Your task to perform on an android device: Clear the shopping cart on target.com. Image 0: 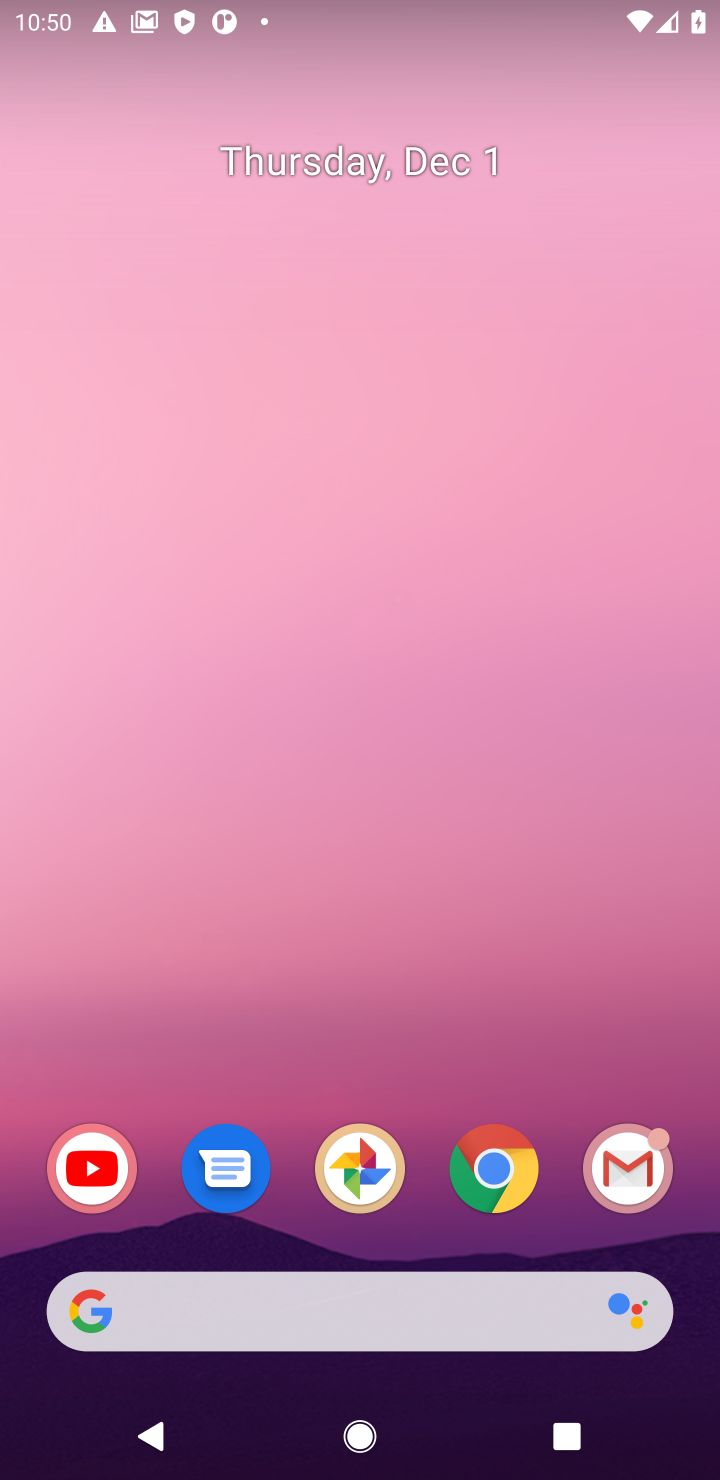
Step 0: click (497, 1180)
Your task to perform on an android device: Clear the shopping cart on target.com. Image 1: 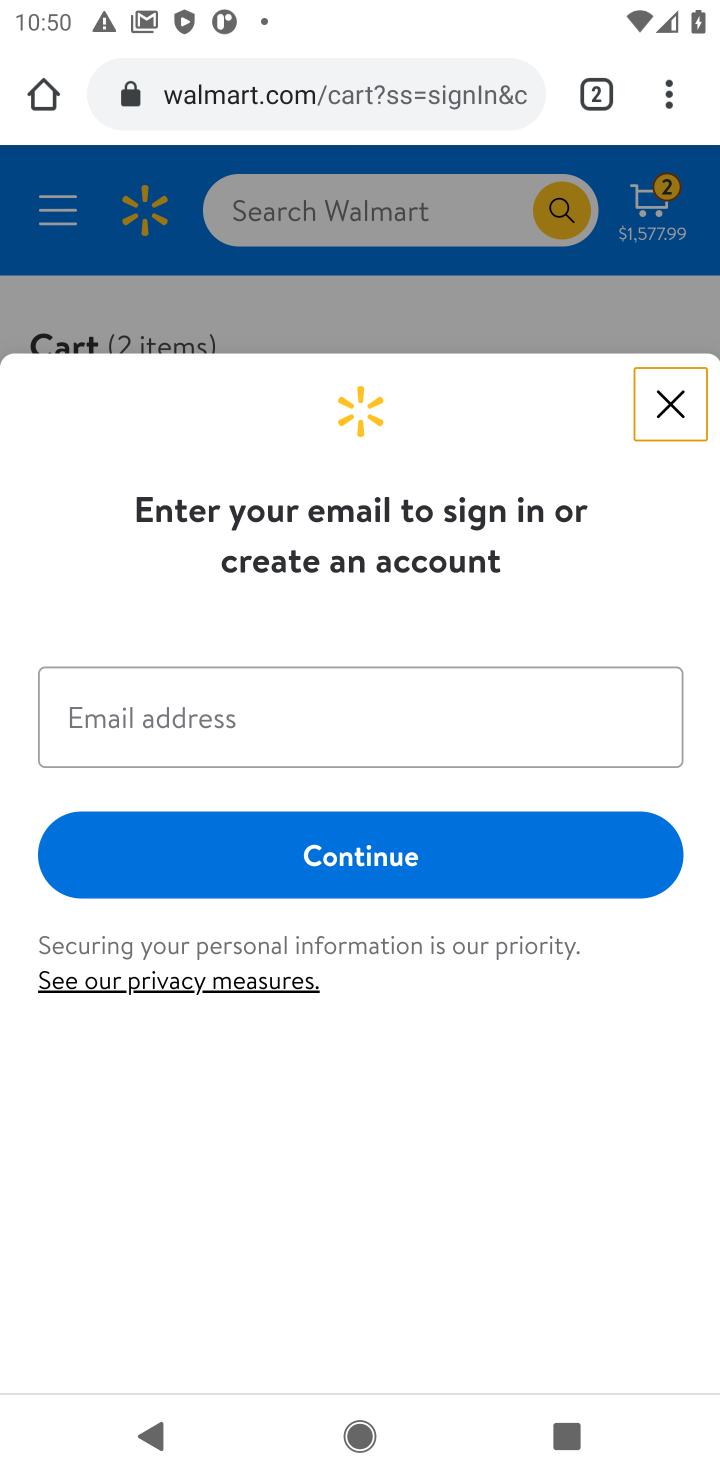
Step 1: click (317, 105)
Your task to perform on an android device: Clear the shopping cart on target.com. Image 2: 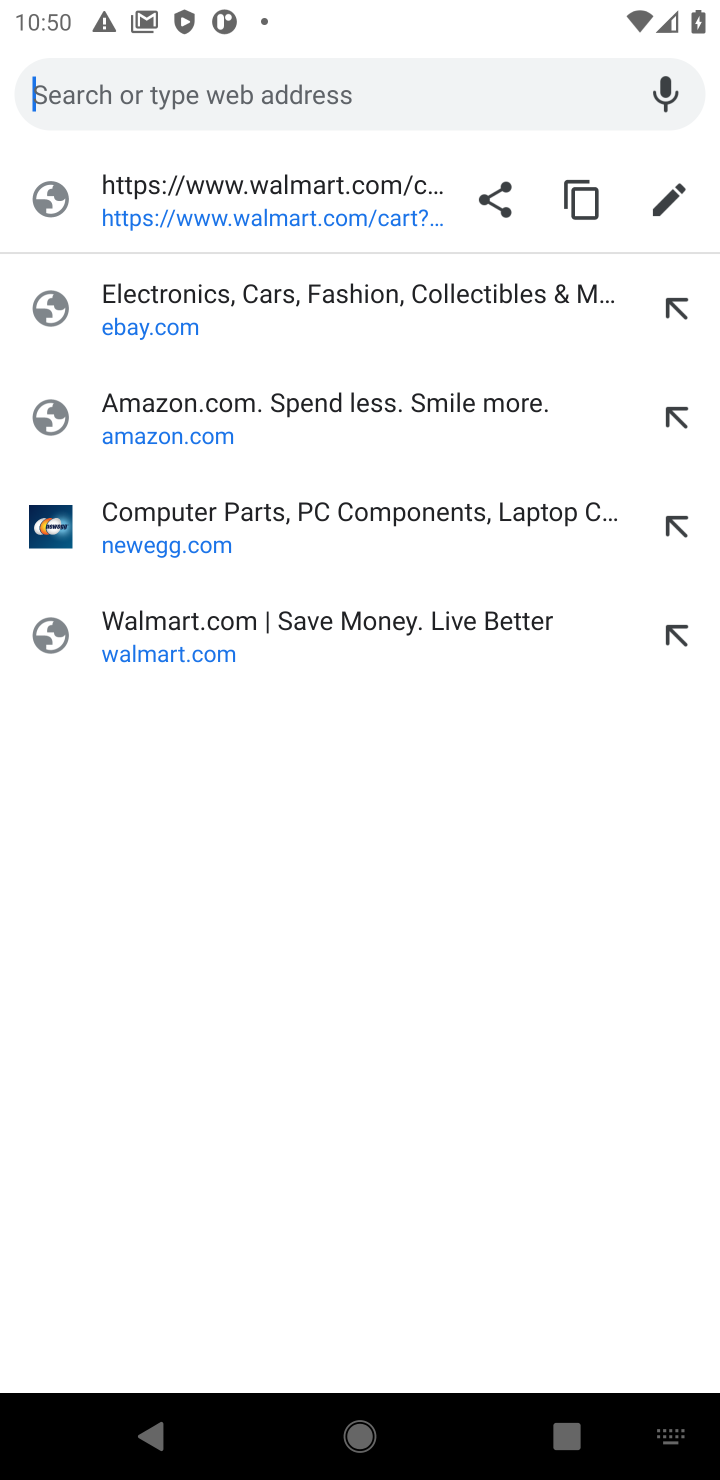
Step 2: type "target.com"
Your task to perform on an android device: Clear the shopping cart on target.com. Image 3: 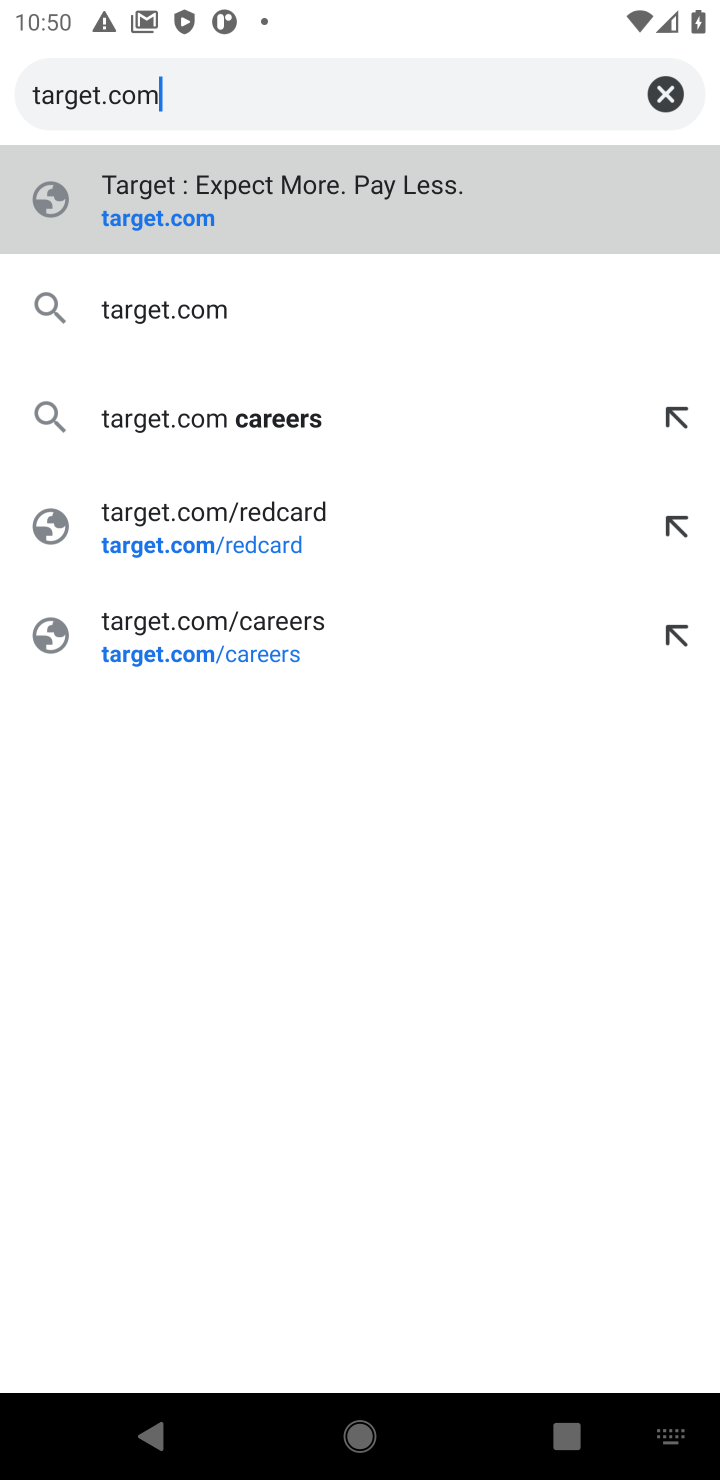
Step 3: click (151, 230)
Your task to perform on an android device: Clear the shopping cart on target.com. Image 4: 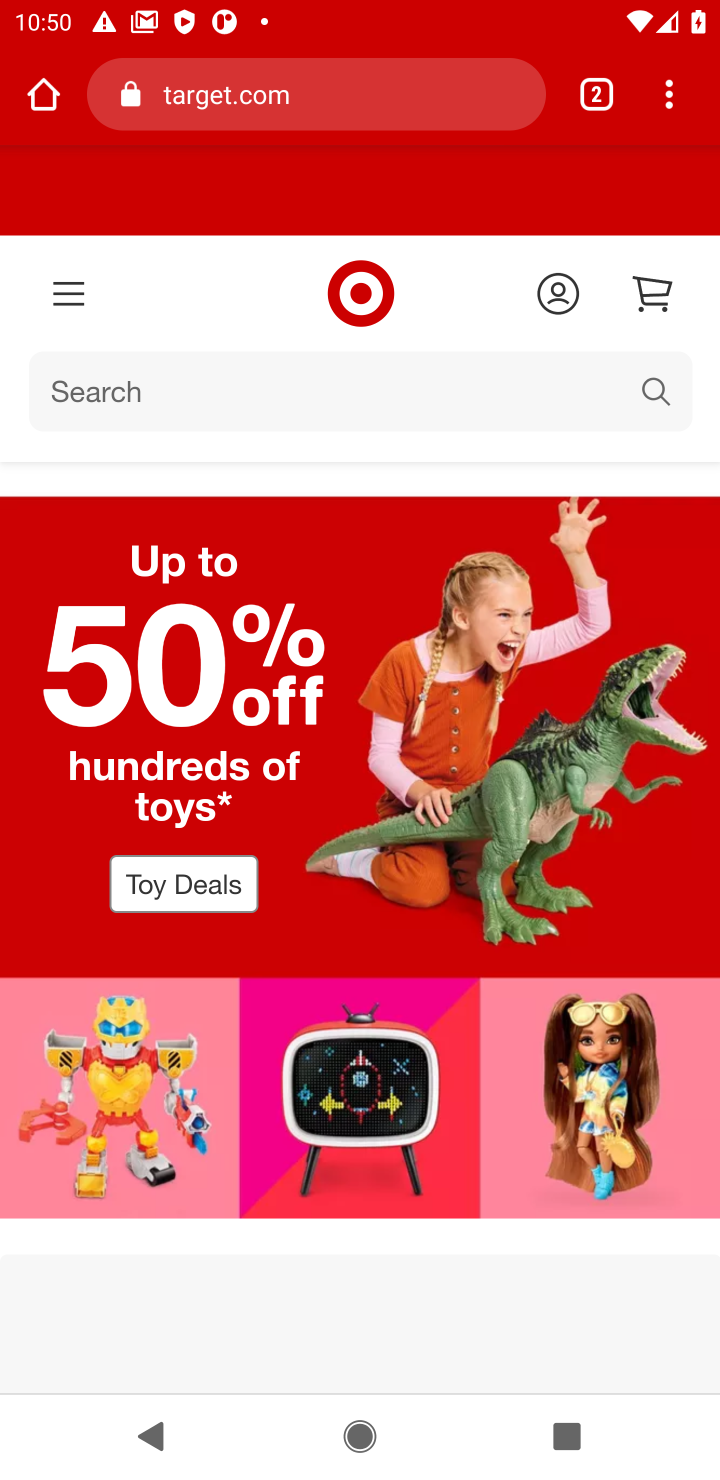
Step 4: click (655, 290)
Your task to perform on an android device: Clear the shopping cart on target.com. Image 5: 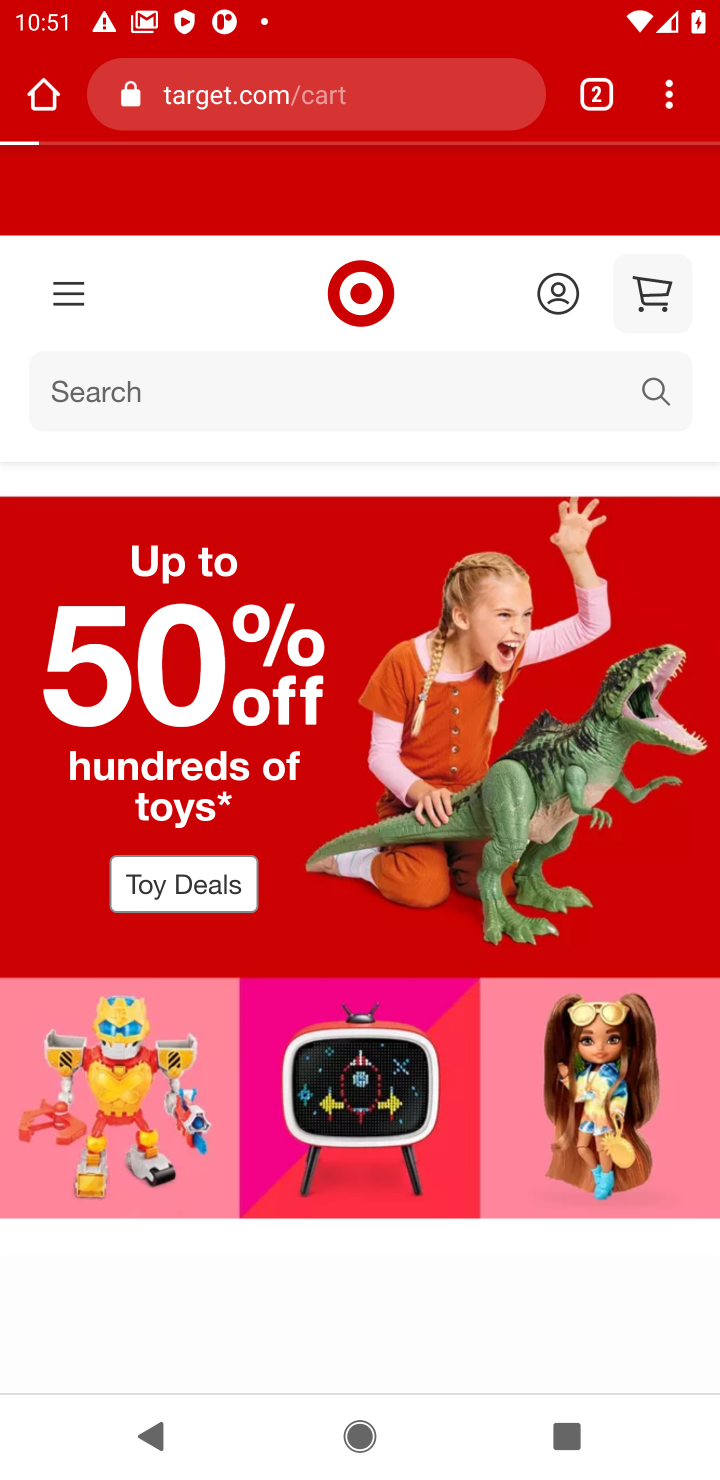
Step 5: click (653, 298)
Your task to perform on an android device: Clear the shopping cart on target.com. Image 6: 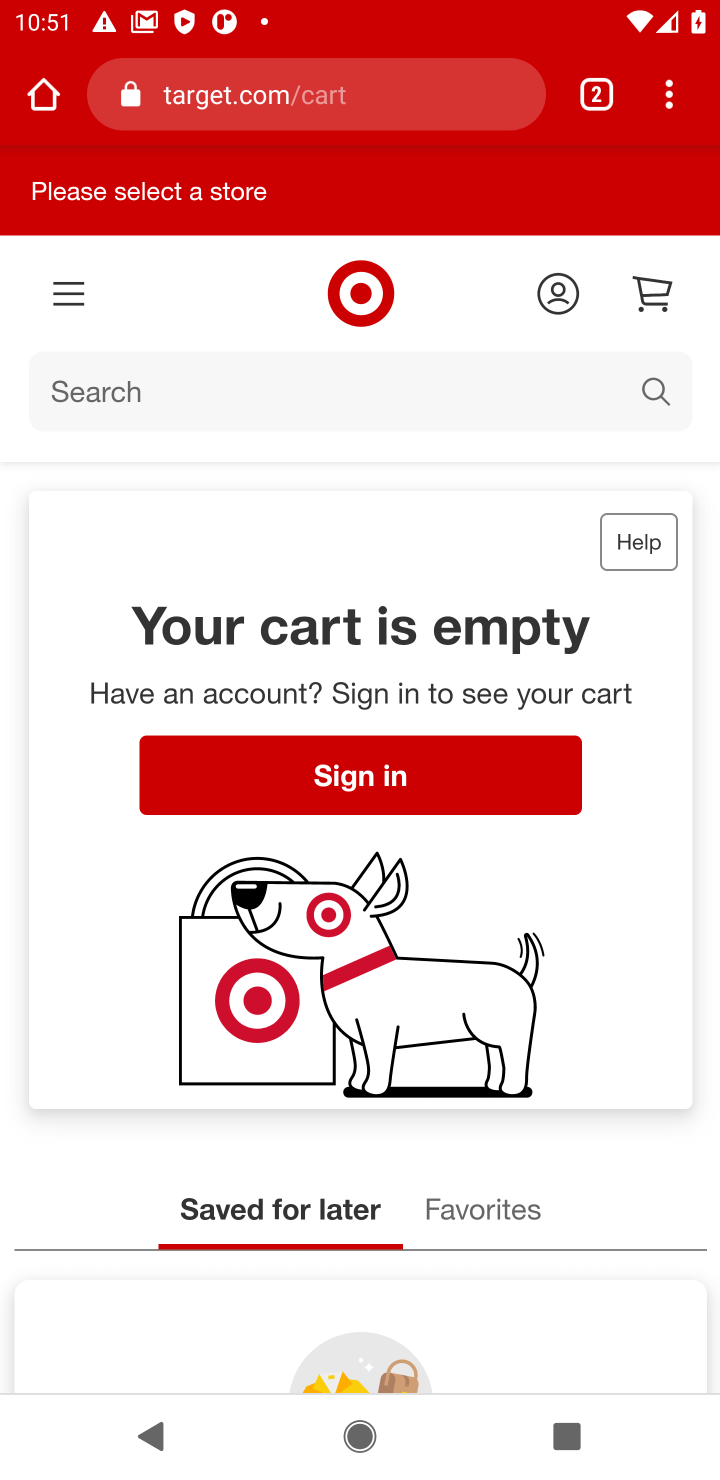
Step 6: task complete